Your task to perform on an android device: move an email to a new category in the gmail app Image 0: 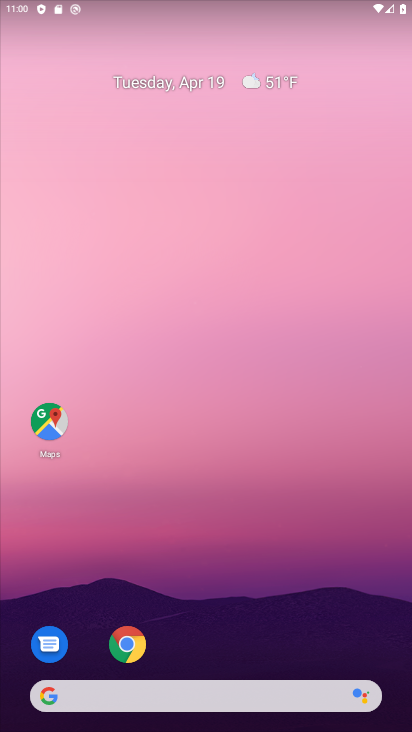
Step 0: drag from (265, 607) to (305, 37)
Your task to perform on an android device: move an email to a new category in the gmail app Image 1: 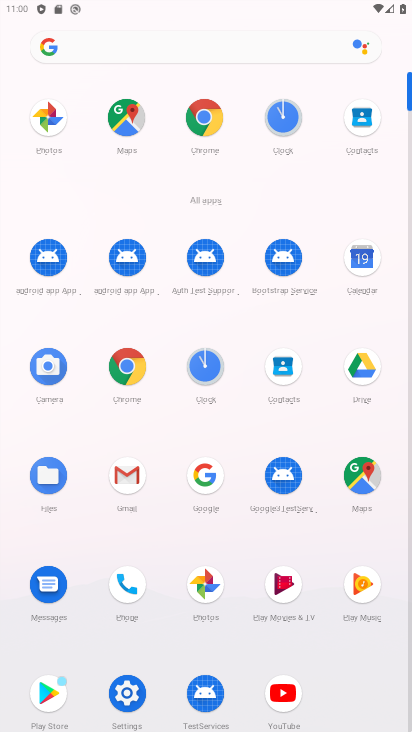
Step 1: click (124, 473)
Your task to perform on an android device: move an email to a new category in the gmail app Image 2: 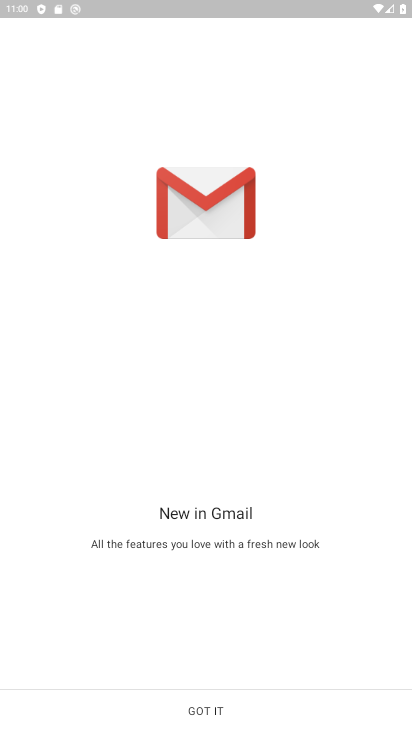
Step 2: click (207, 703)
Your task to perform on an android device: move an email to a new category in the gmail app Image 3: 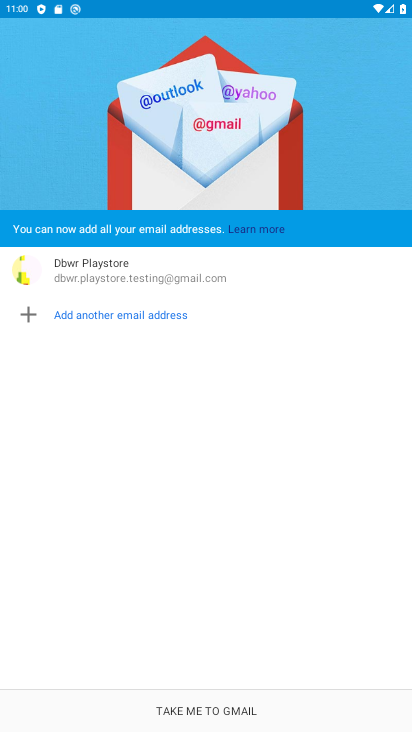
Step 3: click (207, 703)
Your task to perform on an android device: move an email to a new category in the gmail app Image 4: 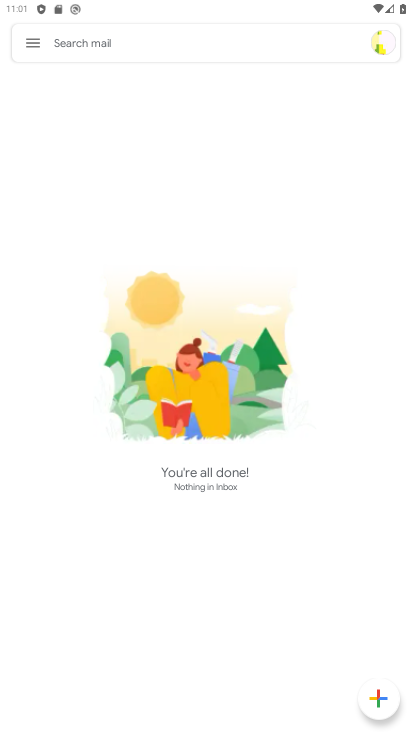
Step 4: click (25, 40)
Your task to perform on an android device: move an email to a new category in the gmail app Image 5: 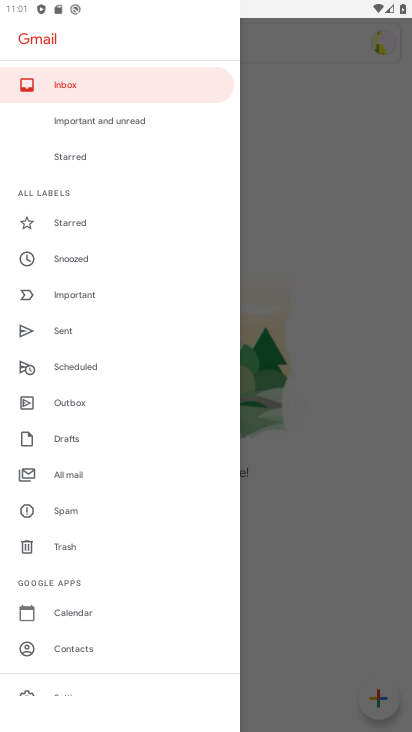
Step 5: click (79, 469)
Your task to perform on an android device: move an email to a new category in the gmail app Image 6: 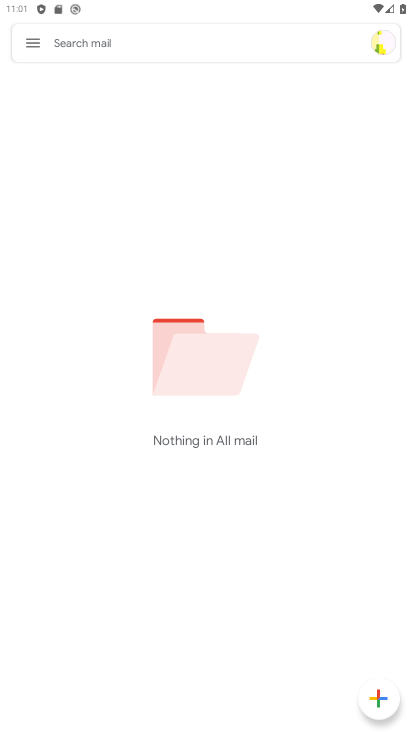
Step 6: task complete